Your task to perform on an android device: toggle javascript in the chrome app Image 0: 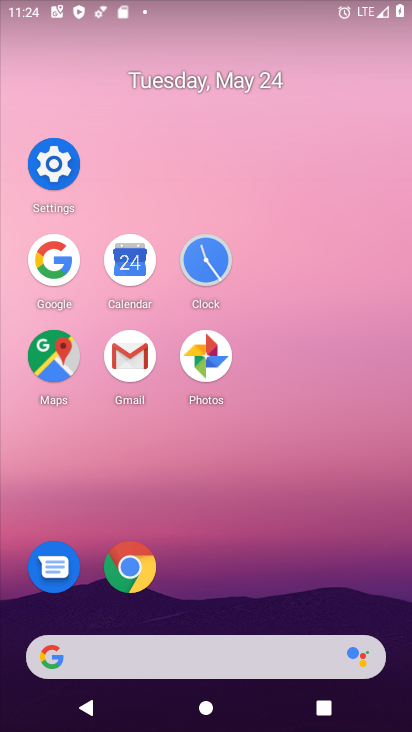
Step 0: click (126, 584)
Your task to perform on an android device: toggle javascript in the chrome app Image 1: 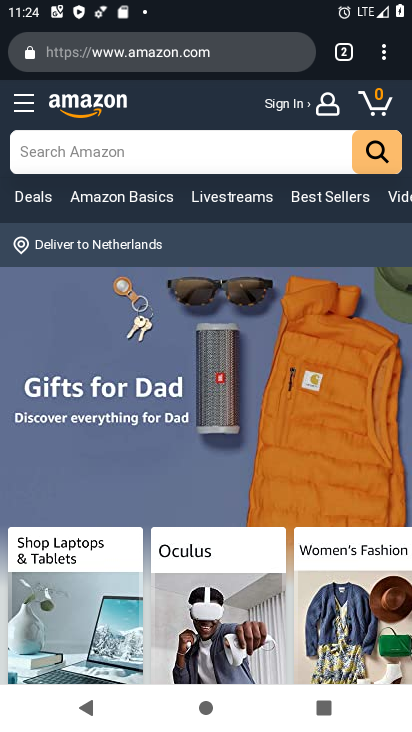
Step 1: click (389, 46)
Your task to perform on an android device: toggle javascript in the chrome app Image 2: 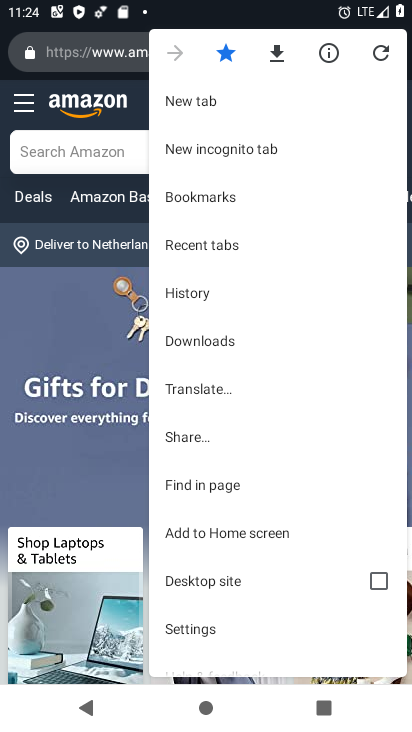
Step 2: click (203, 625)
Your task to perform on an android device: toggle javascript in the chrome app Image 3: 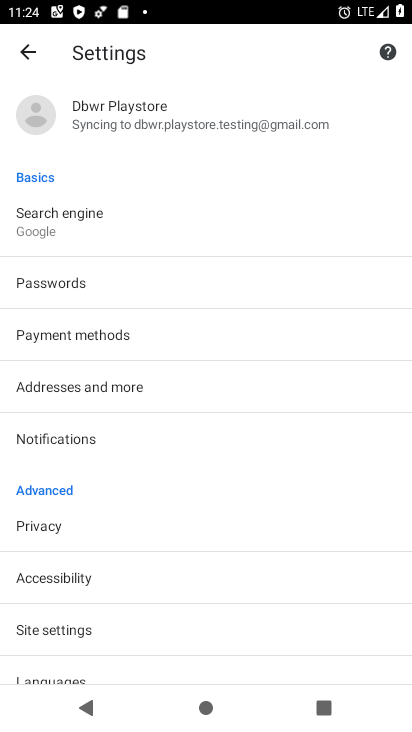
Step 3: drag from (173, 567) to (255, 237)
Your task to perform on an android device: toggle javascript in the chrome app Image 4: 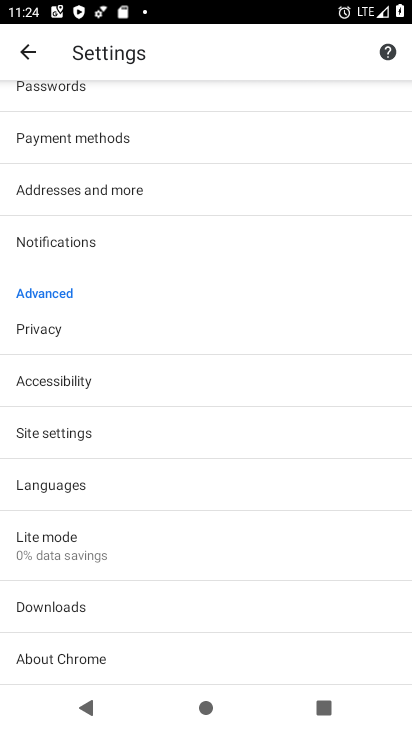
Step 4: drag from (138, 604) to (186, 236)
Your task to perform on an android device: toggle javascript in the chrome app Image 5: 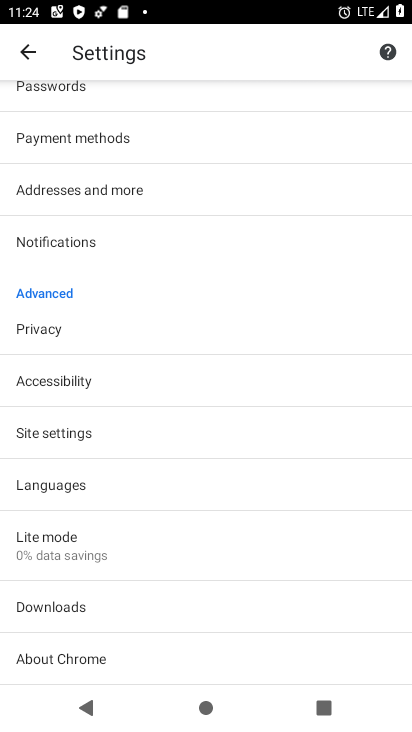
Step 5: click (131, 428)
Your task to perform on an android device: toggle javascript in the chrome app Image 6: 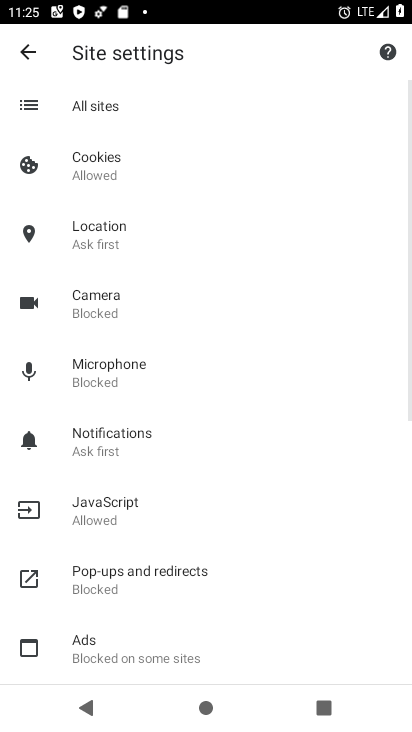
Step 6: click (175, 514)
Your task to perform on an android device: toggle javascript in the chrome app Image 7: 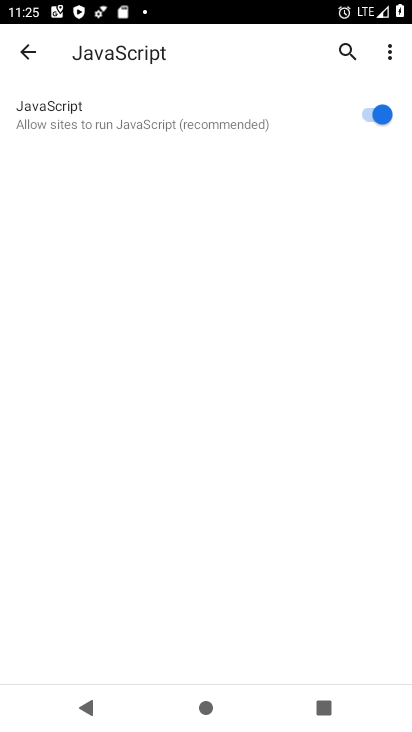
Step 7: click (397, 123)
Your task to perform on an android device: toggle javascript in the chrome app Image 8: 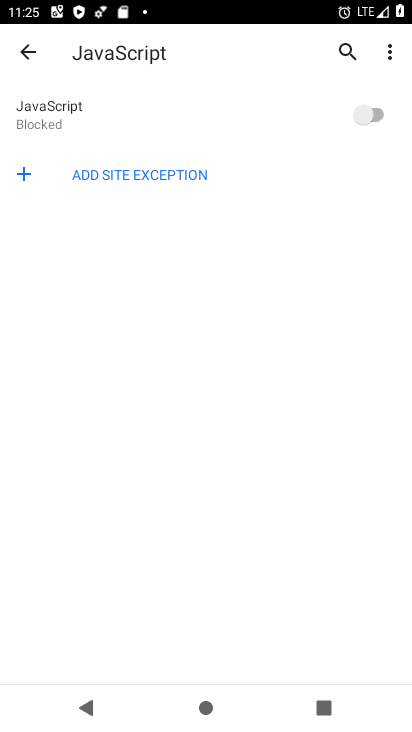
Step 8: task complete